Your task to perform on an android device: stop showing notifications on the lock screen Image 0: 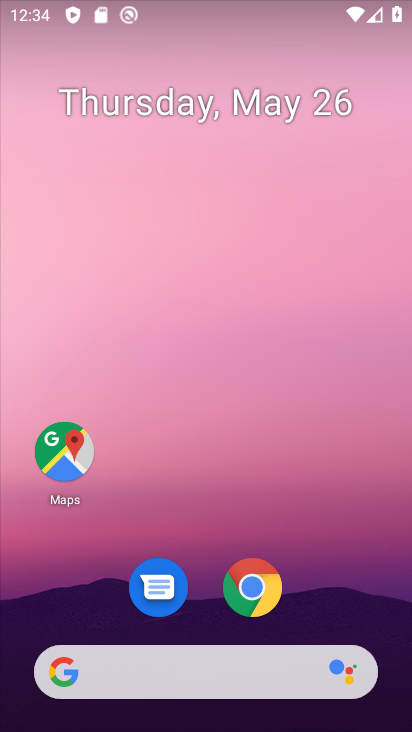
Step 0: drag from (358, 609) to (366, 224)
Your task to perform on an android device: stop showing notifications on the lock screen Image 1: 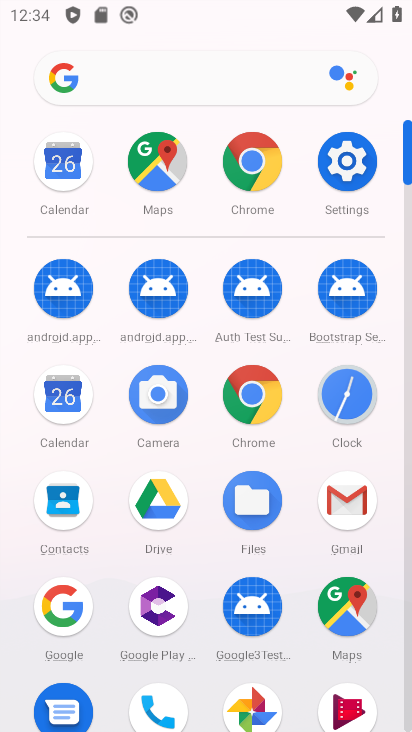
Step 1: click (352, 178)
Your task to perform on an android device: stop showing notifications on the lock screen Image 2: 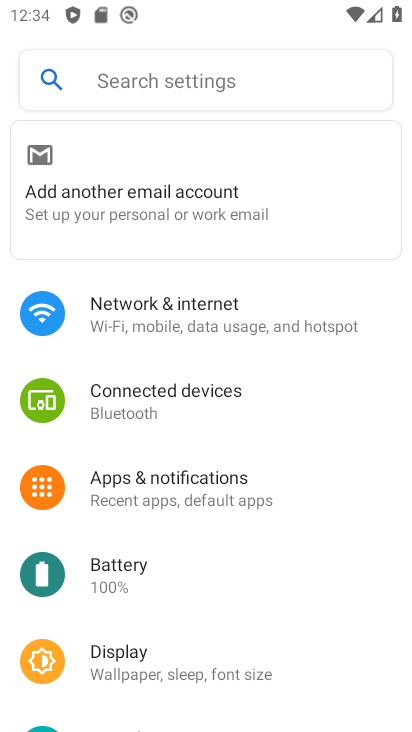
Step 2: drag from (337, 547) to (353, 469)
Your task to perform on an android device: stop showing notifications on the lock screen Image 3: 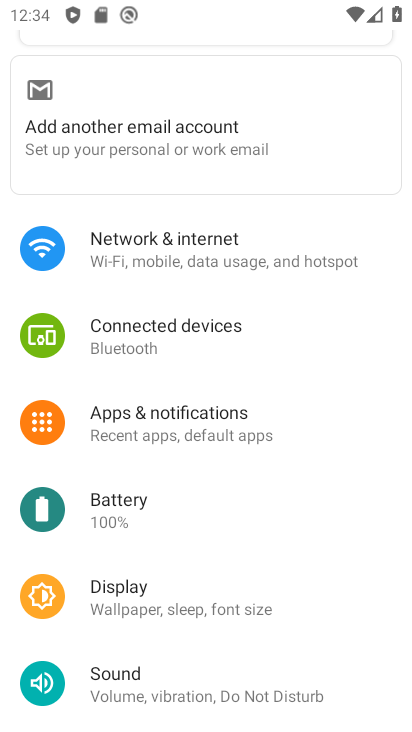
Step 3: drag from (339, 574) to (344, 482)
Your task to perform on an android device: stop showing notifications on the lock screen Image 4: 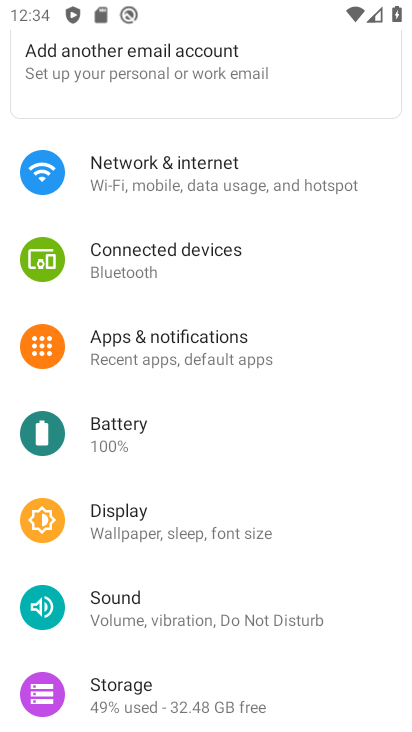
Step 4: drag from (328, 584) to (343, 500)
Your task to perform on an android device: stop showing notifications on the lock screen Image 5: 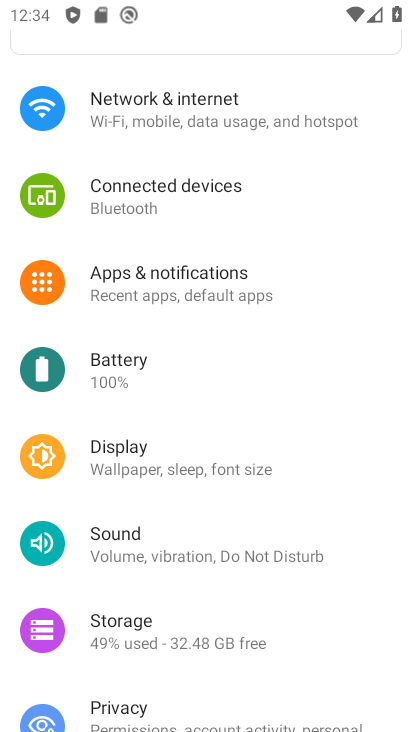
Step 5: drag from (347, 582) to (368, 506)
Your task to perform on an android device: stop showing notifications on the lock screen Image 6: 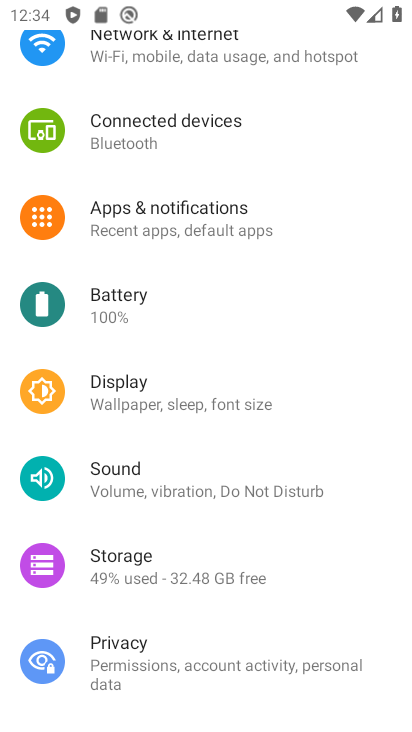
Step 6: drag from (360, 550) to (369, 504)
Your task to perform on an android device: stop showing notifications on the lock screen Image 7: 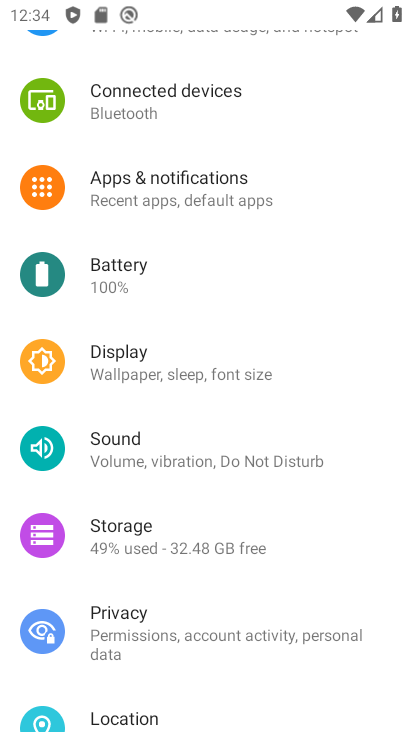
Step 7: drag from (358, 563) to (359, 495)
Your task to perform on an android device: stop showing notifications on the lock screen Image 8: 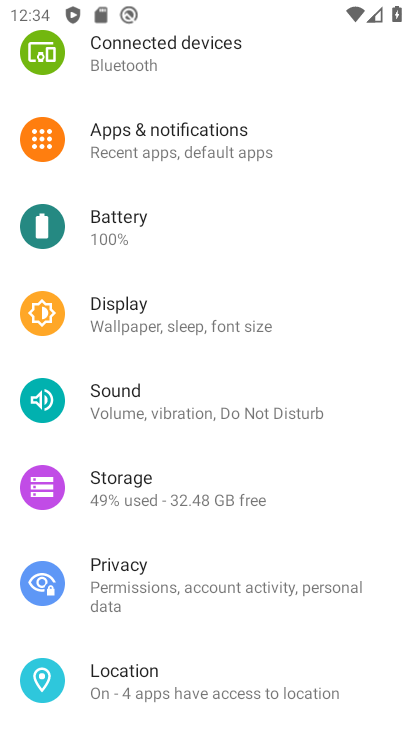
Step 8: drag from (350, 560) to (364, 485)
Your task to perform on an android device: stop showing notifications on the lock screen Image 9: 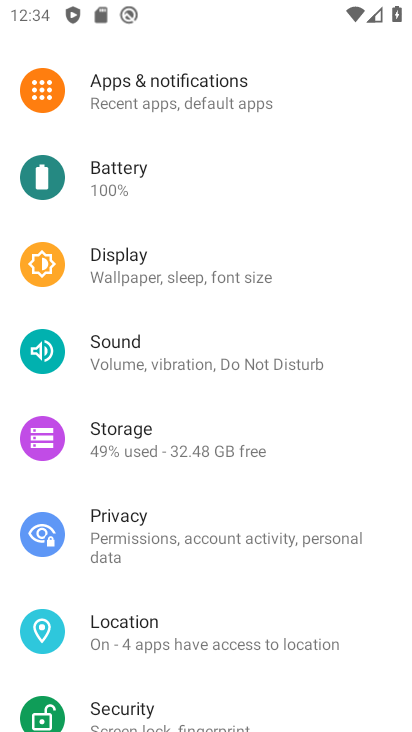
Step 9: drag from (375, 615) to (381, 546)
Your task to perform on an android device: stop showing notifications on the lock screen Image 10: 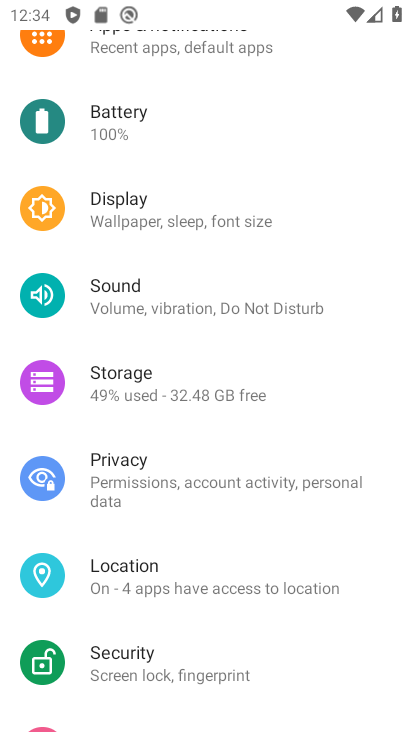
Step 10: drag from (363, 621) to (371, 537)
Your task to perform on an android device: stop showing notifications on the lock screen Image 11: 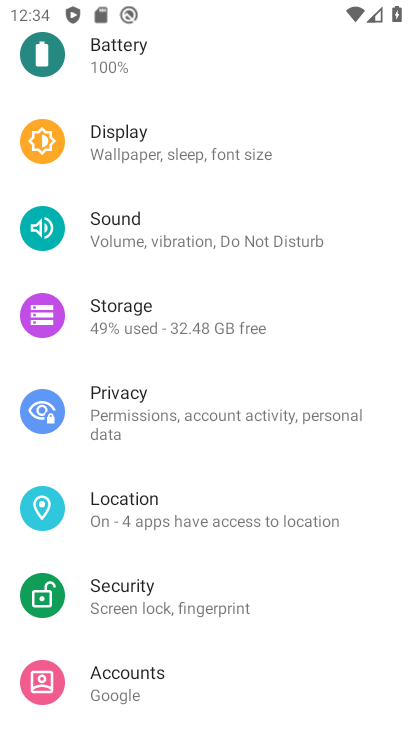
Step 11: drag from (364, 600) to (362, 514)
Your task to perform on an android device: stop showing notifications on the lock screen Image 12: 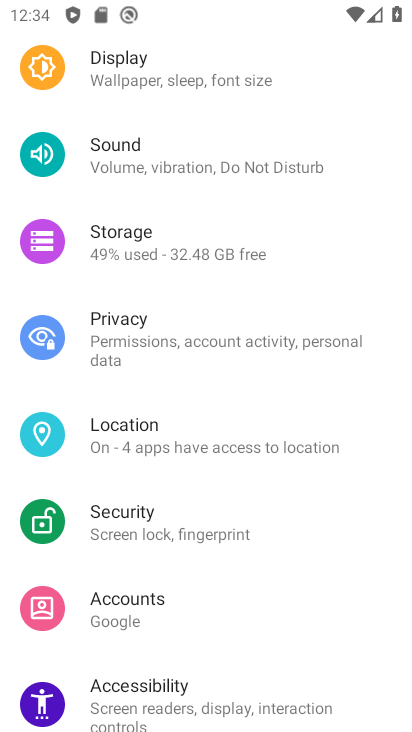
Step 12: drag from (351, 593) to (360, 504)
Your task to perform on an android device: stop showing notifications on the lock screen Image 13: 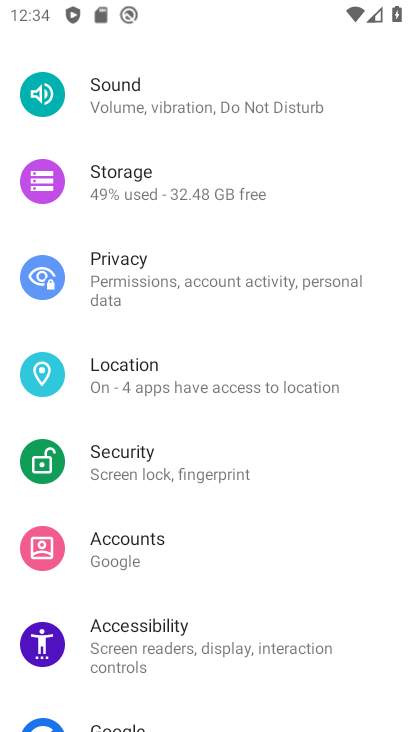
Step 13: drag from (354, 526) to (359, 421)
Your task to perform on an android device: stop showing notifications on the lock screen Image 14: 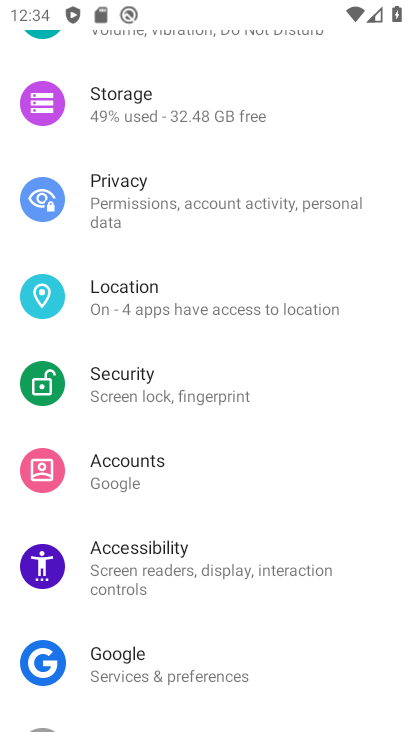
Step 14: drag from (364, 381) to (366, 448)
Your task to perform on an android device: stop showing notifications on the lock screen Image 15: 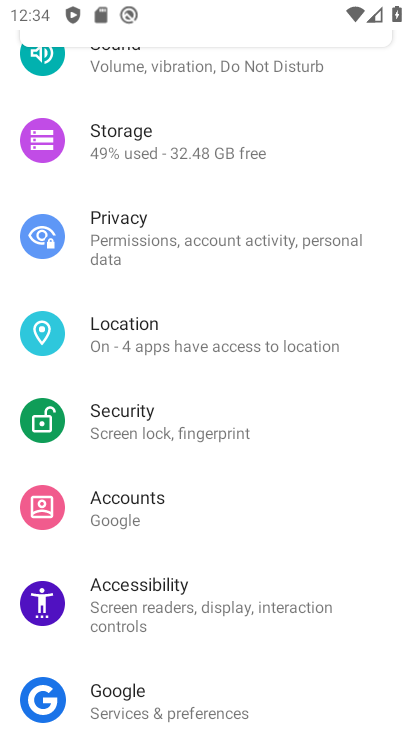
Step 15: drag from (366, 372) to (386, 441)
Your task to perform on an android device: stop showing notifications on the lock screen Image 16: 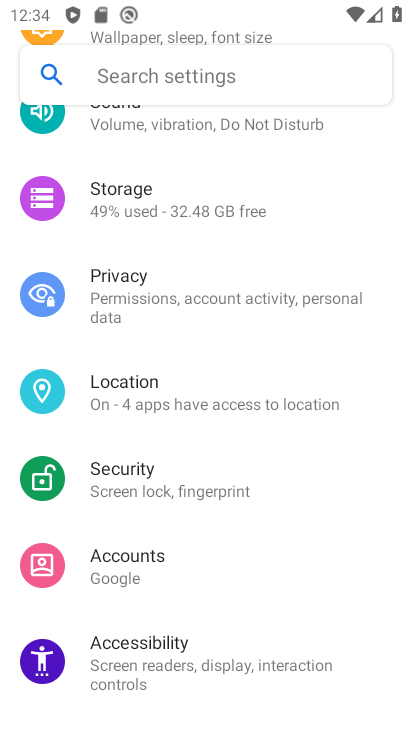
Step 16: click (374, 410)
Your task to perform on an android device: stop showing notifications on the lock screen Image 17: 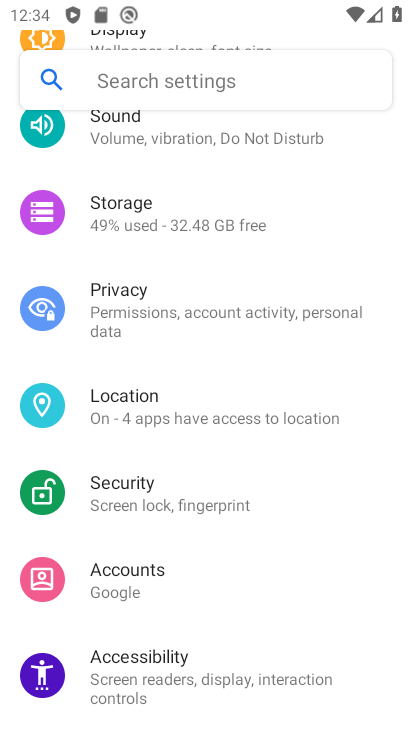
Step 17: drag from (368, 384) to (356, 481)
Your task to perform on an android device: stop showing notifications on the lock screen Image 18: 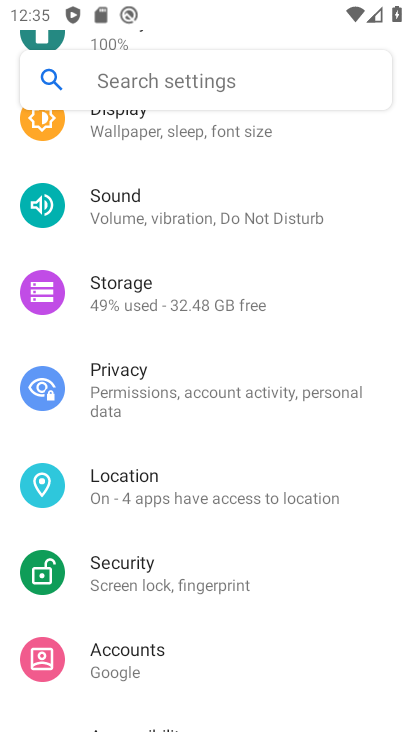
Step 18: drag from (375, 401) to (361, 457)
Your task to perform on an android device: stop showing notifications on the lock screen Image 19: 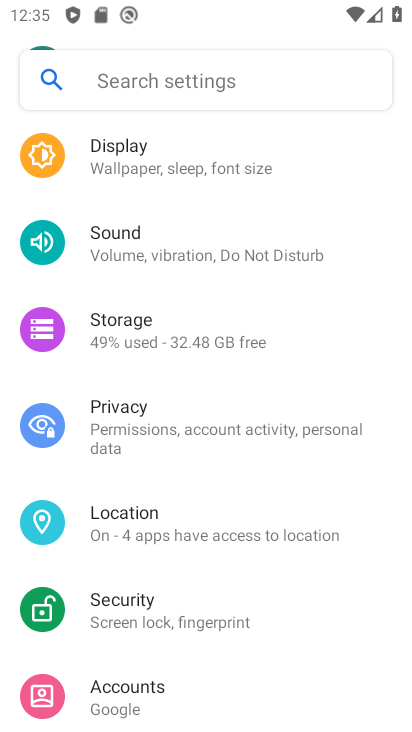
Step 19: drag from (354, 360) to (354, 431)
Your task to perform on an android device: stop showing notifications on the lock screen Image 20: 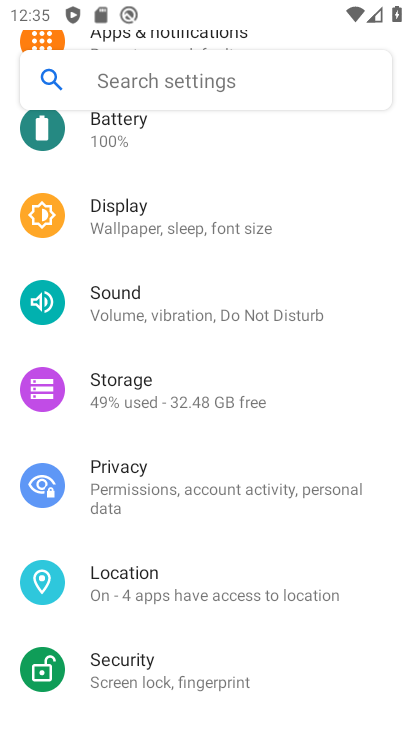
Step 20: drag from (381, 344) to (364, 423)
Your task to perform on an android device: stop showing notifications on the lock screen Image 21: 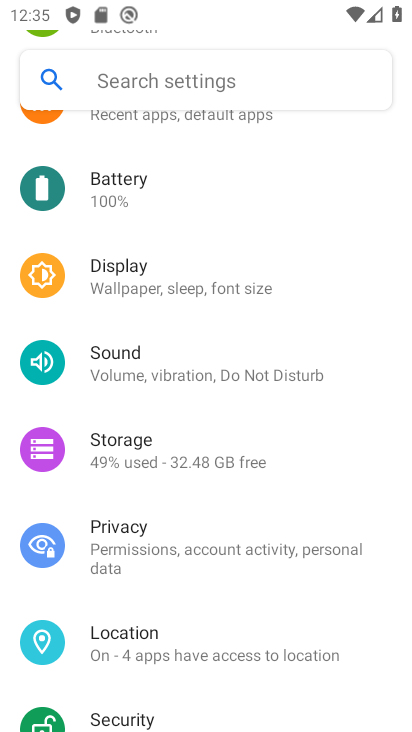
Step 21: drag from (348, 342) to (345, 427)
Your task to perform on an android device: stop showing notifications on the lock screen Image 22: 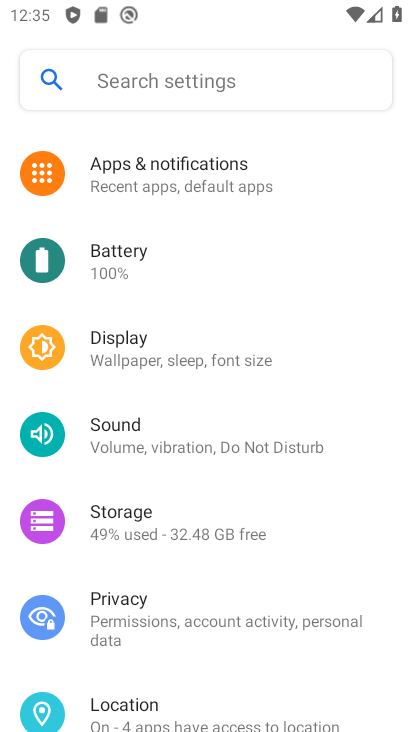
Step 22: drag from (340, 357) to (340, 428)
Your task to perform on an android device: stop showing notifications on the lock screen Image 23: 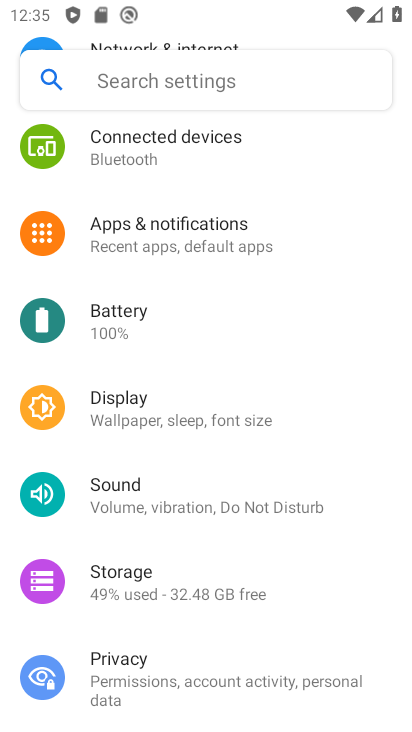
Step 23: drag from (311, 372) to (315, 443)
Your task to perform on an android device: stop showing notifications on the lock screen Image 24: 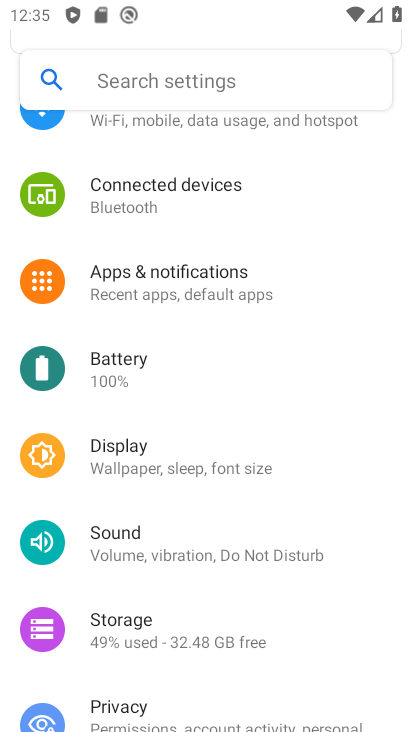
Step 24: drag from (311, 374) to (317, 452)
Your task to perform on an android device: stop showing notifications on the lock screen Image 25: 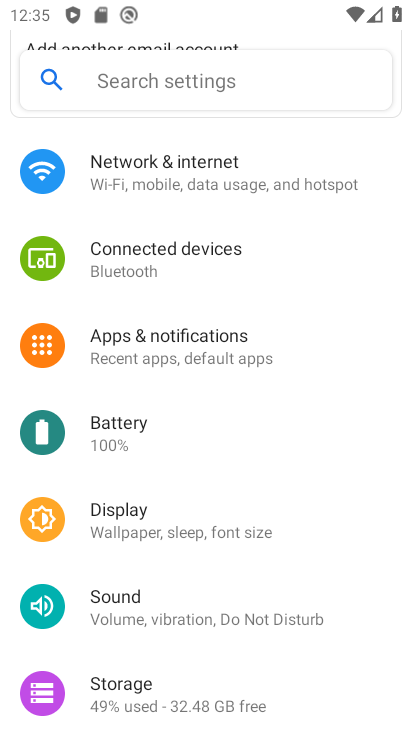
Step 25: drag from (325, 382) to (310, 450)
Your task to perform on an android device: stop showing notifications on the lock screen Image 26: 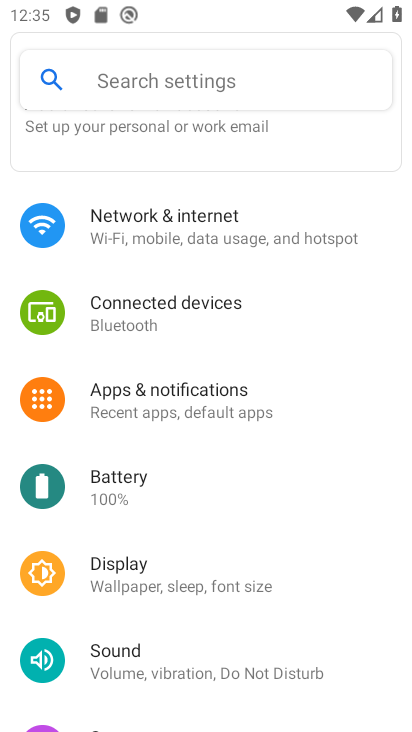
Step 26: click (258, 411)
Your task to perform on an android device: stop showing notifications on the lock screen Image 27: 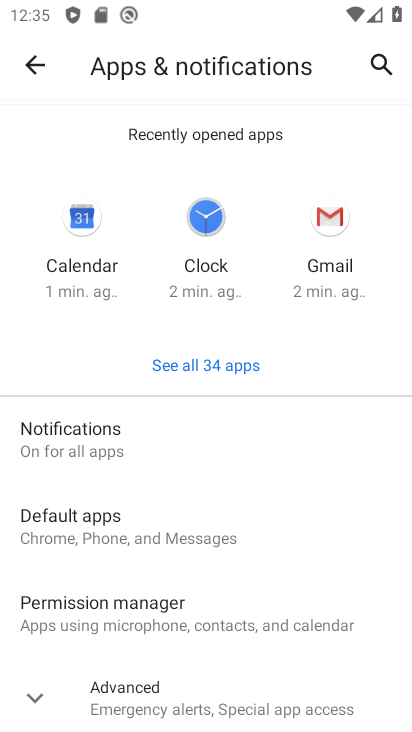
Step 27: click (100, 456)
Your task to perform on an android device: stop showing notifications on the lock screen Image 28: 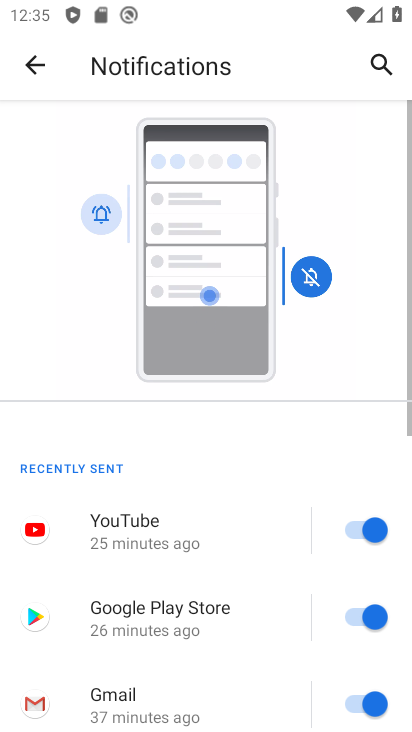
Step 28: drag from (236, 492) to (236, 390)
Your task to perform on an android device: stop showing notifications on the lock screen Image 29: 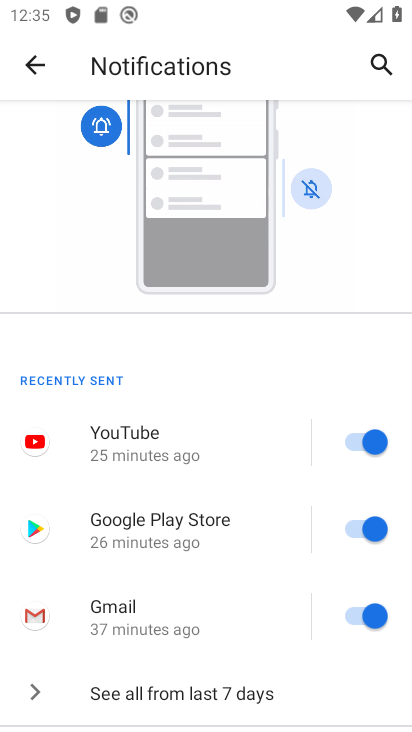
Step 29: drag from (226, 495) to (230, 416)
Your task to perform on an android device: stop showing notifications on the lock screen Image 30: 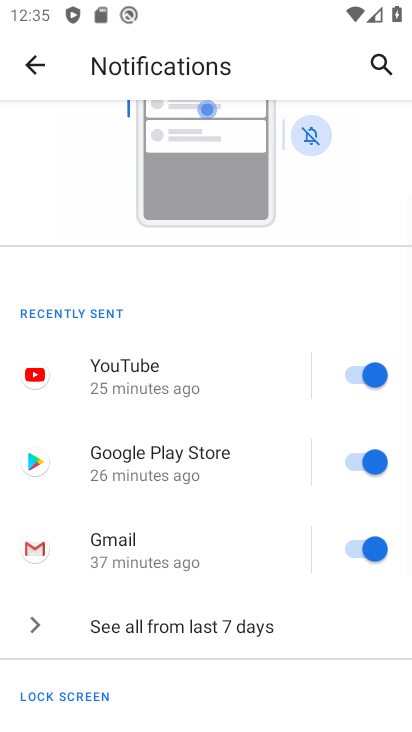
Step 30: drag from (251, 505) to (261, 429)
Your task to perform on an android device: stop showing notifications on the lock screen Image 31: 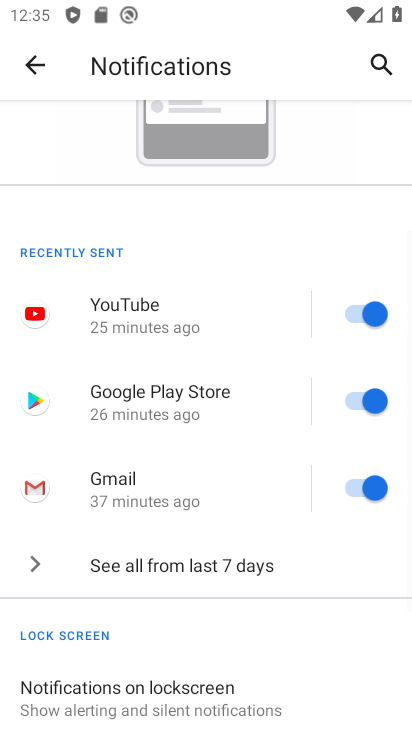
Step 31: drag from (242, 512) to (243, 425)
Your task to perform on an android device: stop showing notifications on the lock screen Image 32: 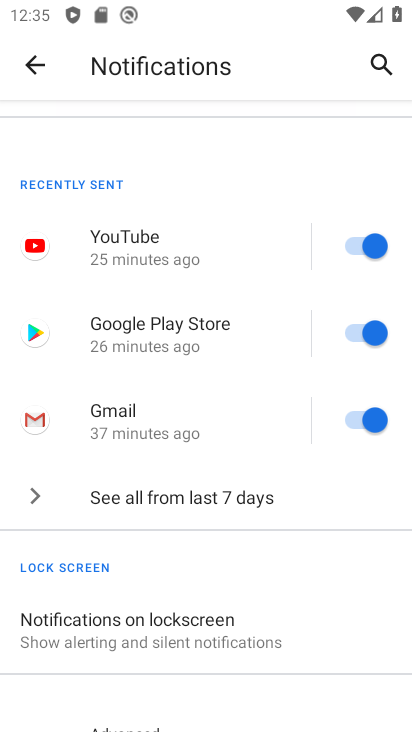
Step 32: drag from (230, 557) to (261, 447)
Your task to perform on an android device: stop showing notifications on the lock screen Image 33: 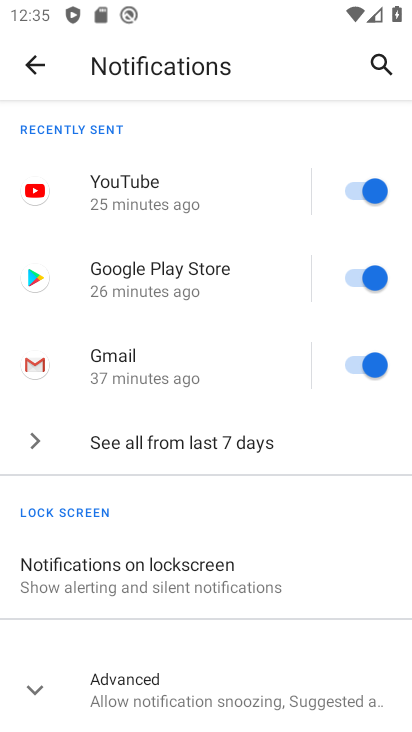
Step 33: click (228, 577)
Your task to perform on an android device: stop showing notifications on the lock screen Image 34: 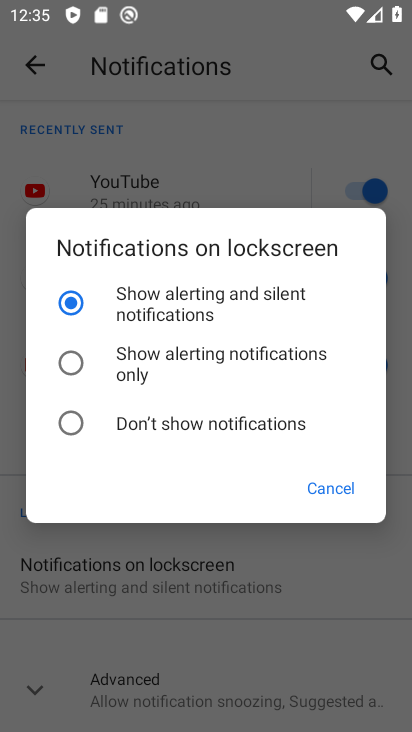
Step 34: click (295, 427)
Your task to perform on an android device: stop showing notifications on the lock screen Image 35: 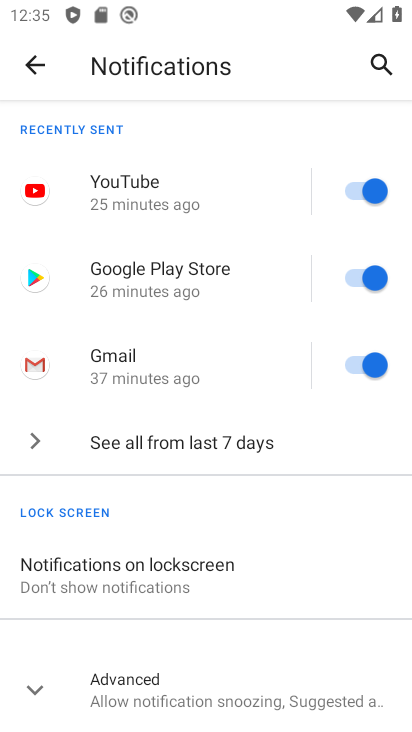
Step 35: task complete